Your task to perform on an android device: turn on bluetooth scan Image 0: 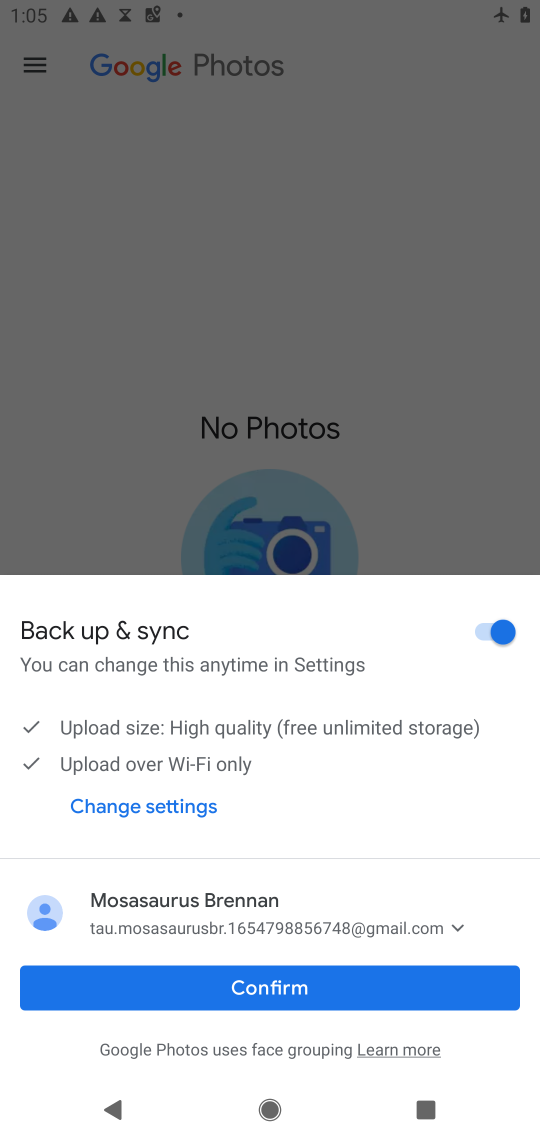
Step 0: press home button
Your task to perform on an android device: turn on bluetooth scan Image 1: 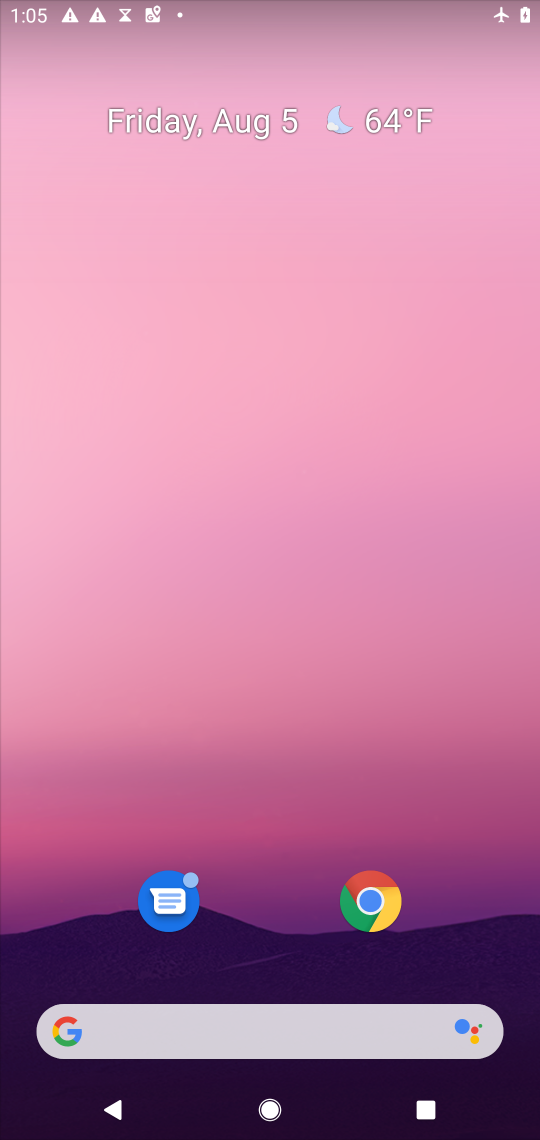
Step 1: drag from (275, 936) to (233, 424)
Your task to perform on an android device: turn on bluetooth scan Image 2: 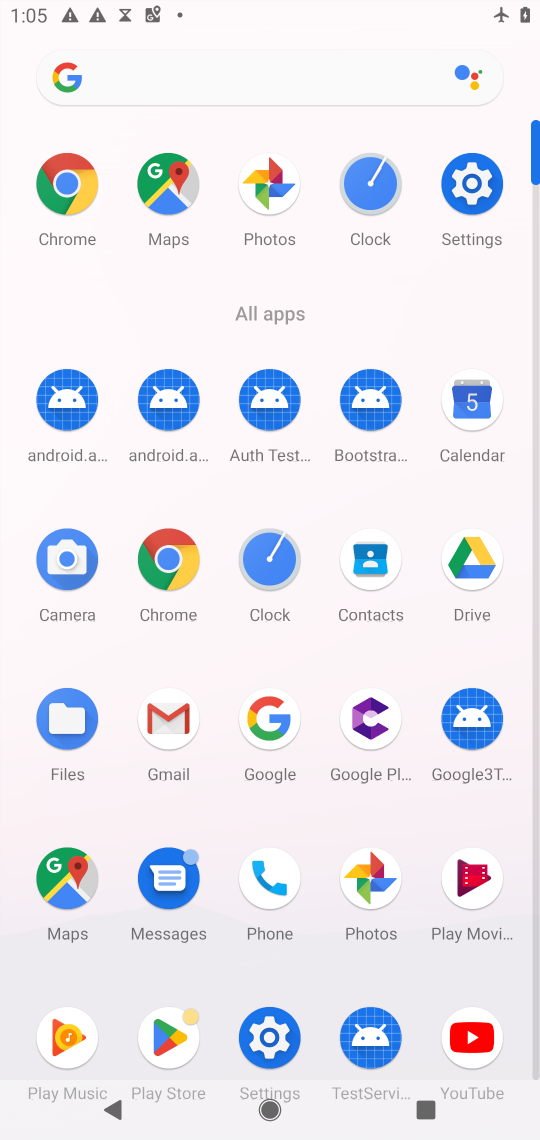
Step 2: click (486, 182)
Your task to perform on an android device: turn on bluetooth scan Image 3: 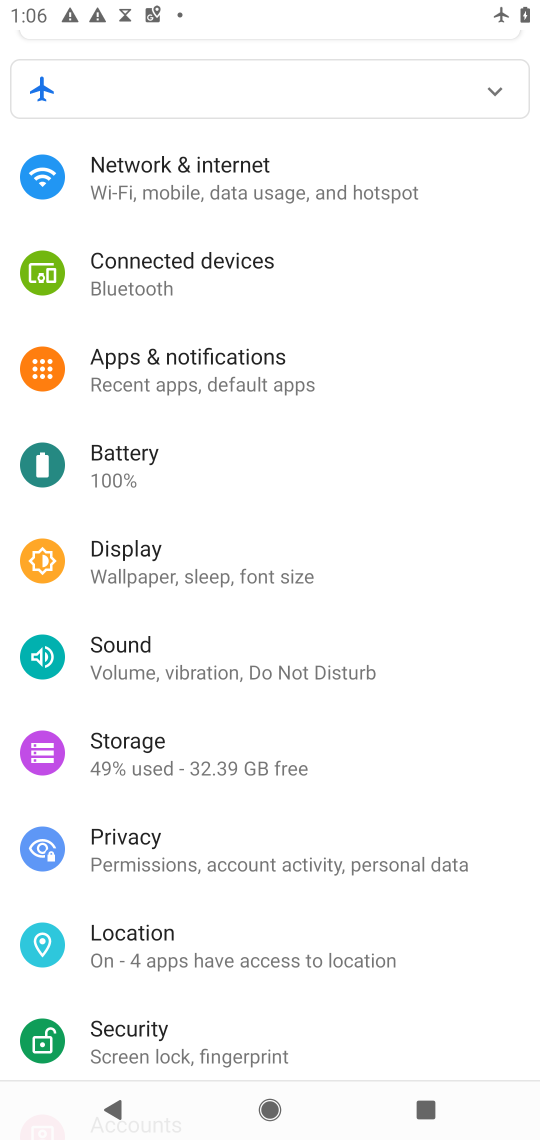
Step 3: click (135, 927)
Your task to perform on an android device: turn on bluetooth scan Image 4: 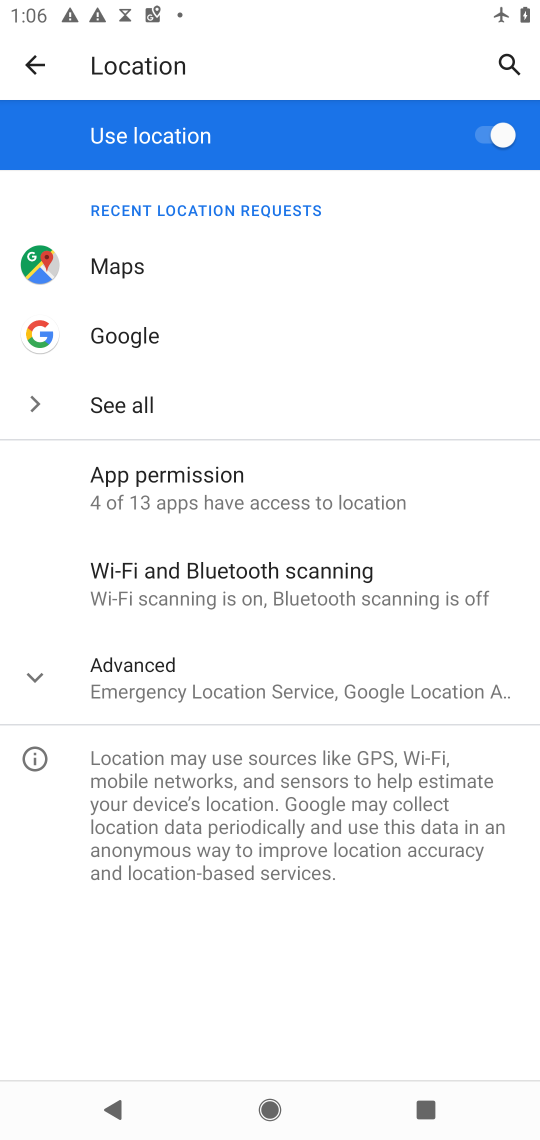
Step 4: click (222, 590)
Your task to perform on an android device: turn on bluetooth scan Image 5: 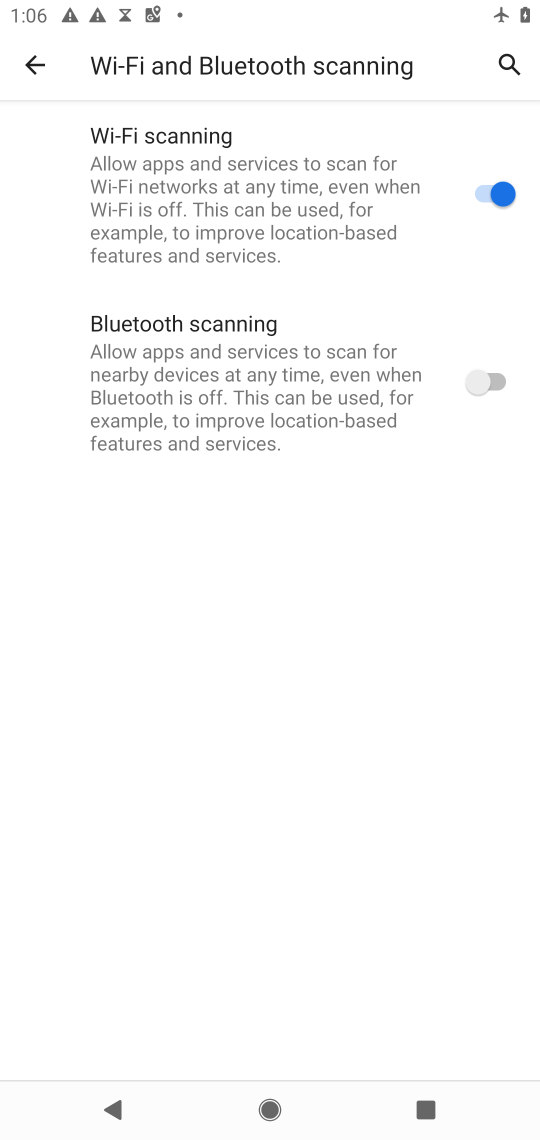
Step 5: click (502, 345)
Your task to perform on an android device: turn on bluetooth scan Image 6: 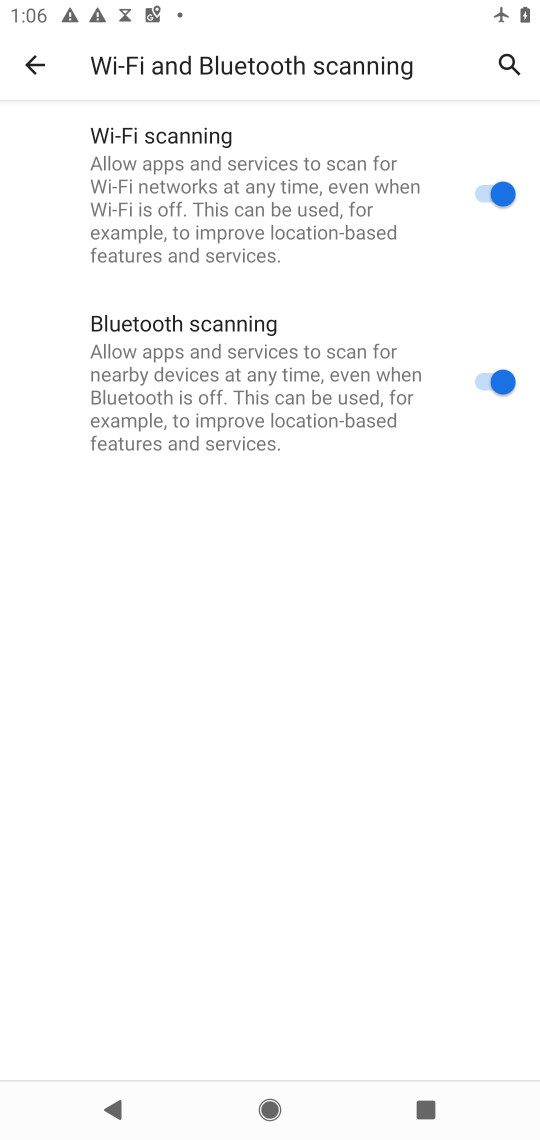
Step 6: task complete